Your task to perform on an android device: Go to notification settings Image 0: 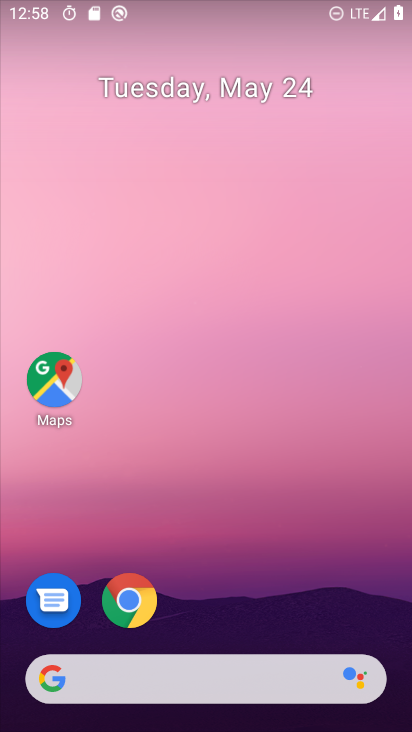
Step 0: drag from (274, 570) to (261, 154)
Your task to perform on an android device: Go to notification settings Image 1: 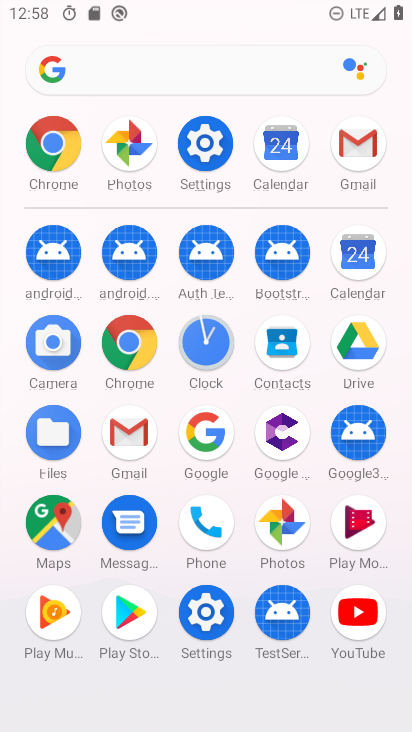
Step 1: click (216, 157)
Your task to perform on an android device: Go to notification settings Image 2: 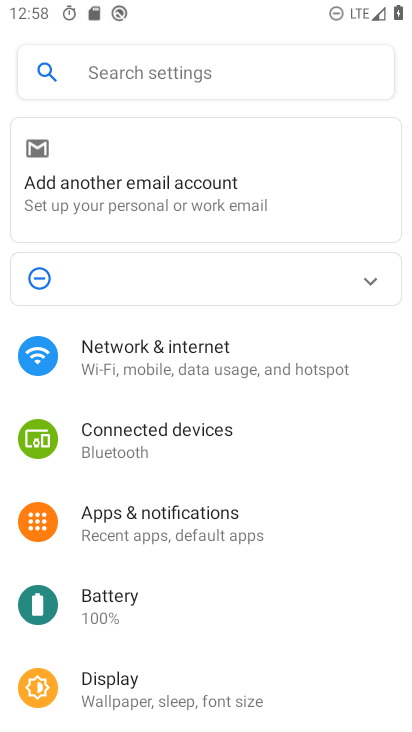
Step 2: drag from (221, 566) to (263, 204)
Your task to perform on an android device: Go to notification settings Image 3: 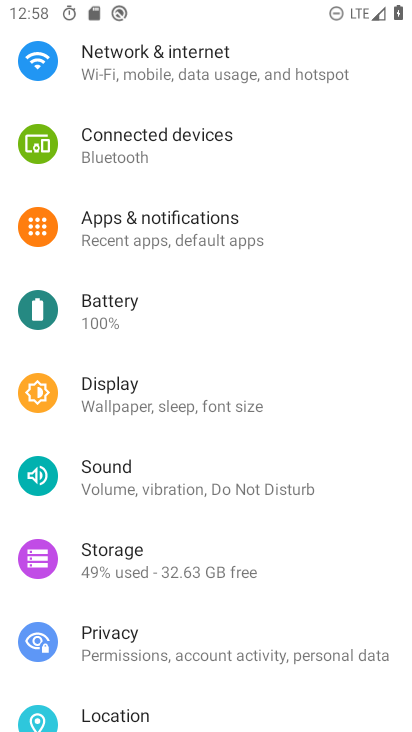
Step 3: click (170, 219)
Your task to perform on an android device: Go to notification settings Image 4: 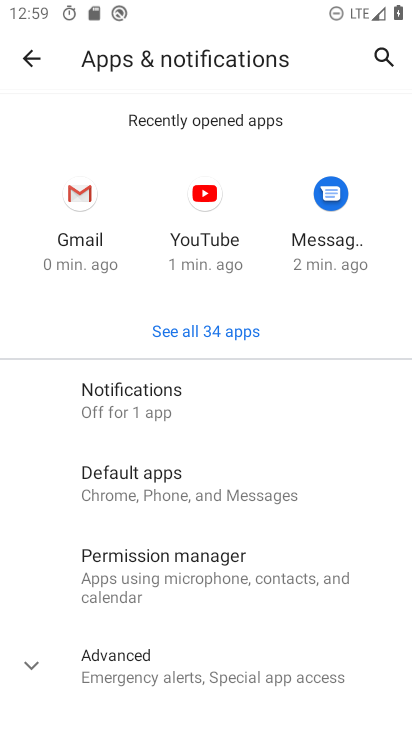
Step 4: click (155, 411)
Your task to perform on an android device: Go to notification settings Image 5: 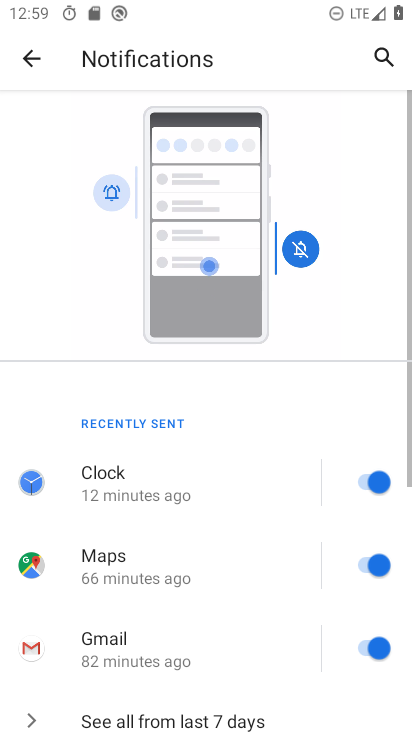
Step 5: task complete